Your task to perform on an android device: open the mobile data screen to see how much data has been used Image 0: 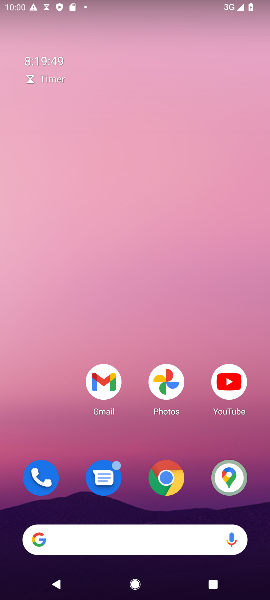
Step 0: drag from (134, 358) to (122, 14)
Your task to perform on an android device: open the mobile data screen to see how much data has been used Image 1: 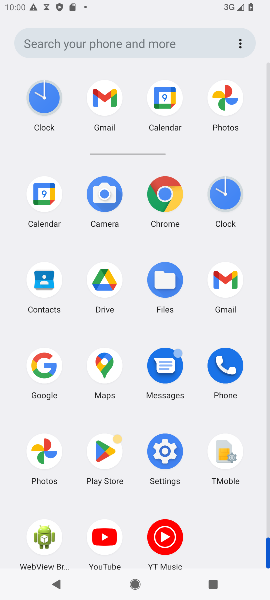
Step 1: click (162, 458)
Your task to perform on an android device: open the mobile data screen to see how much data has been used Image 2: 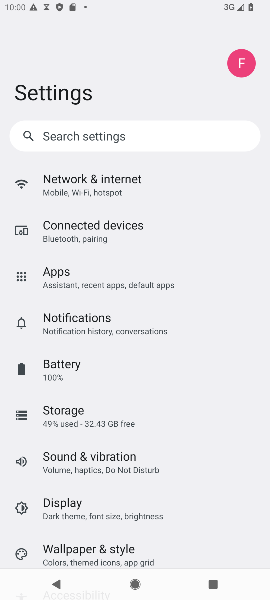
Step 2: click (127, 191)
Your task to perform on an android device: open the mobile data screen to see how much data has been used Image 3: 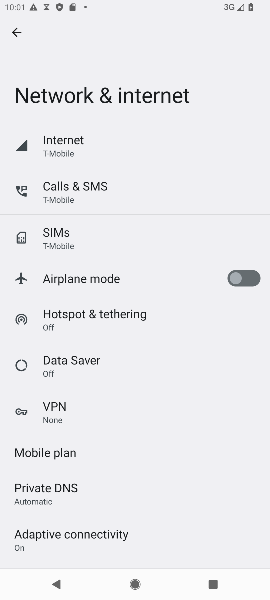
Step 3: click (99, 141)
Your task to perform on an android device: open the mobile data screen to see how much data has been used Image 4: 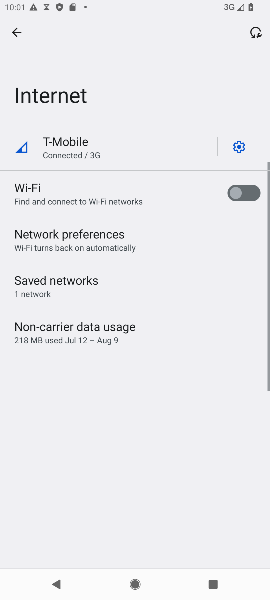
Step 4: click (240, 145)
Your task to perform on an android device: open the mobile data screen to see how much data has been used Image 5: 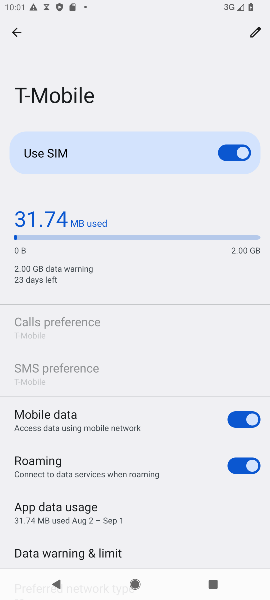
Step 5: task complete